Your task to perform on an android device: toggle sleep mode Image 0: 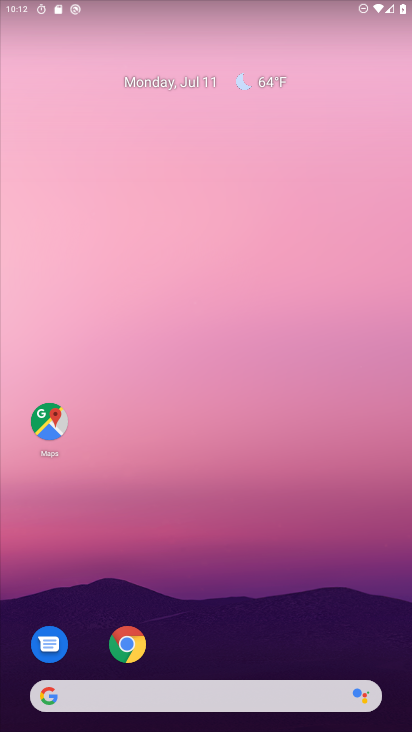
Step 0: drag from (309, 601) to (360, 93)
Your task to perform on an android device: toggle sleep mode Image 1: 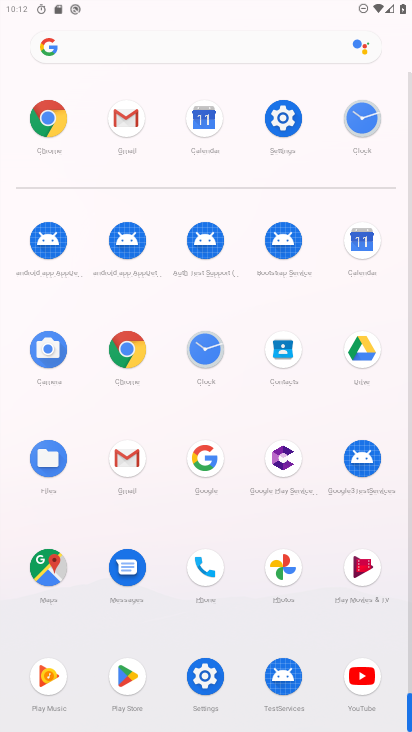
Step 1: click (291, 118)
Your task to perform on an android device: toggle sleep mode Image 2: 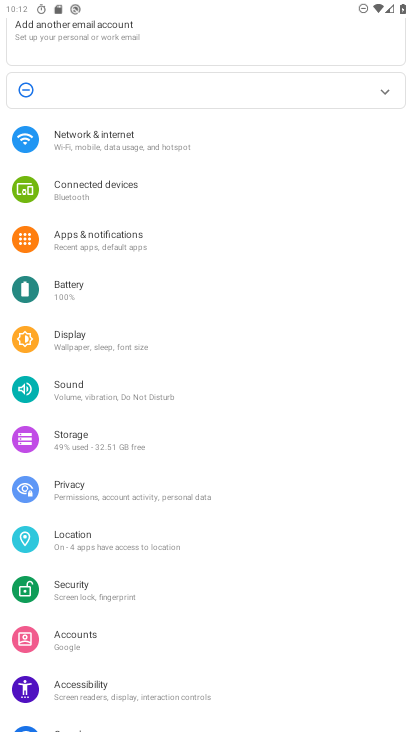
Step 2: click (120, 353)
Your task to perform on an android device: toggle sleep mode Image 3: 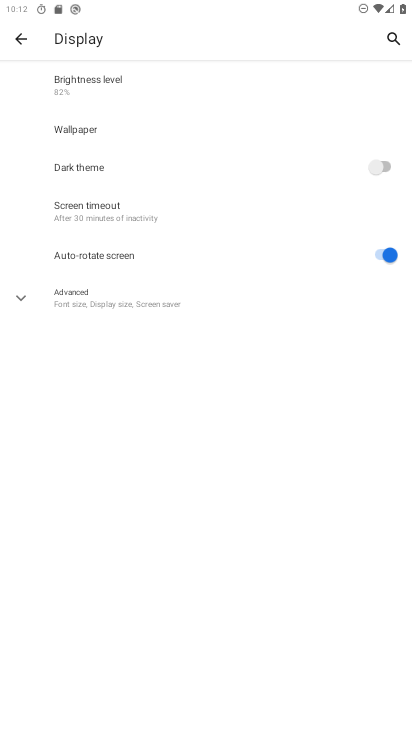
Step 3: click (93, 218)
Your task to perform on an android device: toggle sleep mode Image 4: 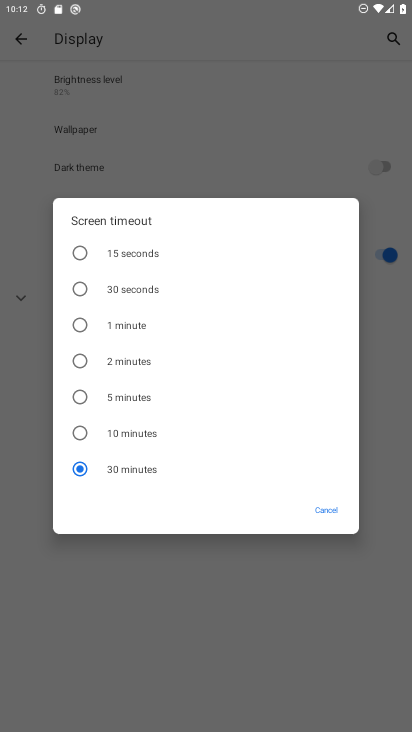
Step 4: click (127, 437)
Your task to perform on an android device: toggle sleep mode Image 5: 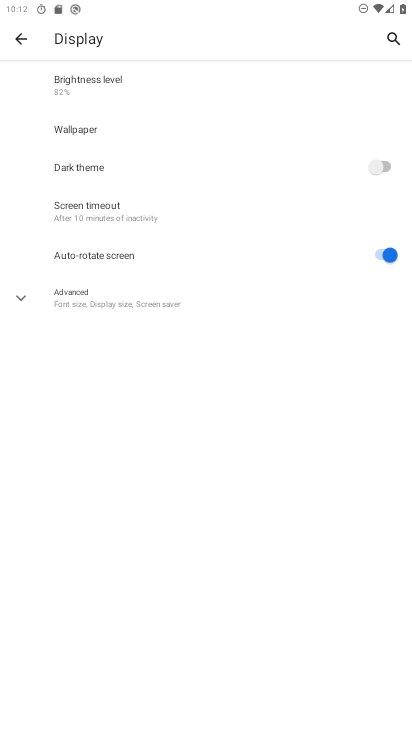
Step 5: task complete